Your task to perform on an android device: Go to Google maps Image 0: 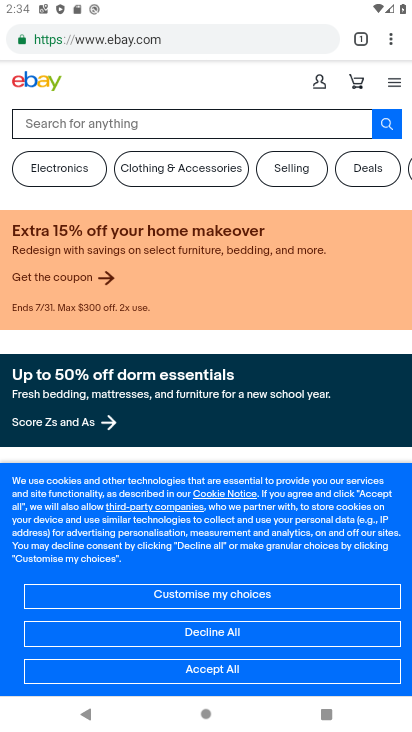
Step 0: task complete